Your task to perform on an android device: Search for logitech g910 on ebay.com, select the first entry, and add it to the cart. Image 0: 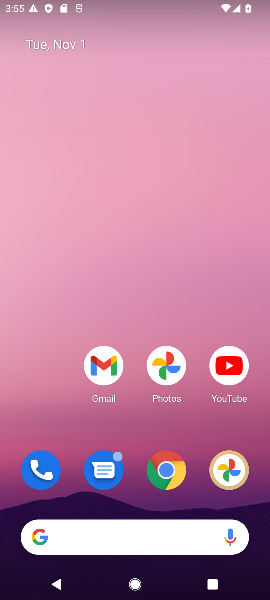
Step 0: click (171, 470)
Your task to perform on an android device: Search for logitech g910 on ebay.com, select the first entry, and add it to the cart. Image 1: 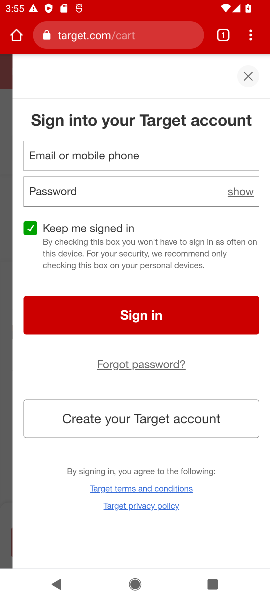
Step 1: click (227, 32)
Your task to perform on an android device: Search for logitech g910 on ebay.com, select the first entry, and add it to the cart. Image 2: 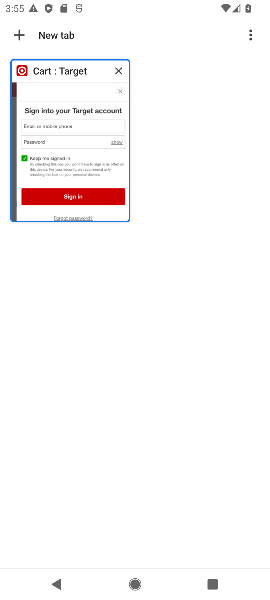
Step 2: click (83, 88)
Your task to perform on an android device: Search for logitech g910 on ebay.com, select the first entry, and add it to the cart. Image 3: 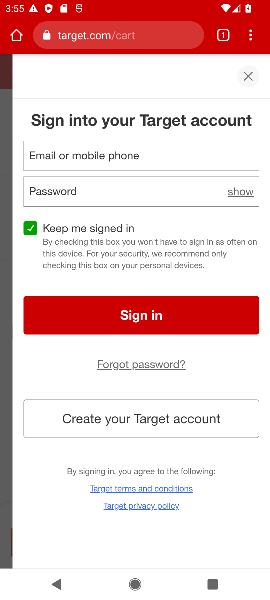
Step 3: click (98, 32)
Your task to perform on an android device: Search for logitech g910 on ebay.com, select the first entry, and add it to the cart. Image 4: 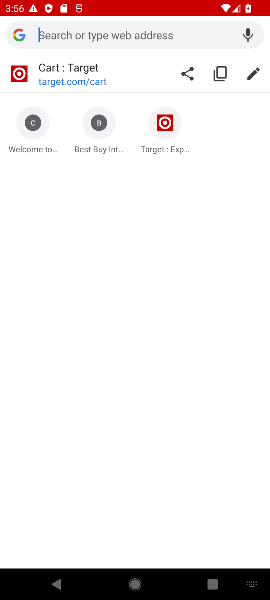
Step 4: type "ebay"
Your task to perform on an android device: Search for logitech g910 on ebay.com, select the first entry, and add it to the cart. Image 5: 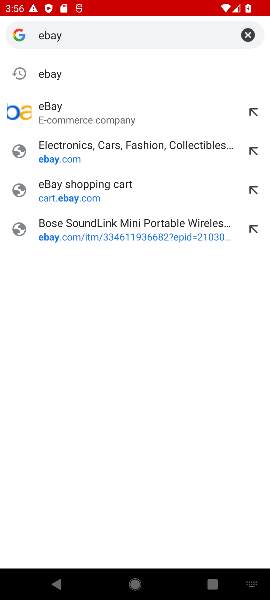
Step 5: click (60, 73)
Your task to perform on an android device: Search for logitech g910 on ebay.com, select the first entry, and add it to the cart. Image 6: 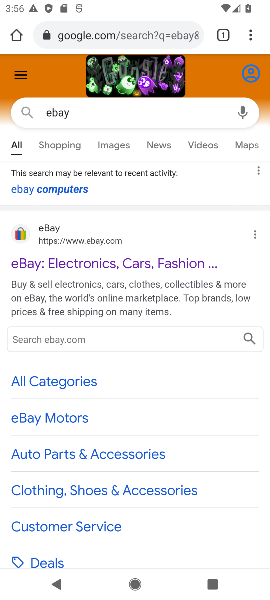
Step 6: click (57, 261)
Your task to perform on an android device: Search for logitech g910 on ebay.com, select the first entry, and add it to the cart. Image 7: 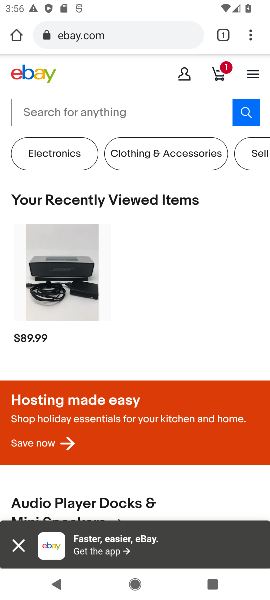
Step 7: click (177, 118)
Your task to perform on an android device: Search for logitech g910 on ebay.com, select the first entry, and add it to the cart. Image 8: 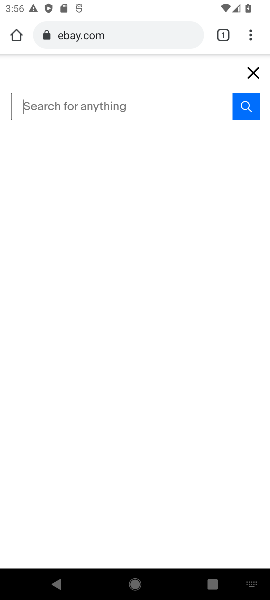
Step 8: type "logitech g910"
Your task to perform on an android device: Search for logitech g910 on ebay.com, select the first entry, and add it to the cart. Image 9: 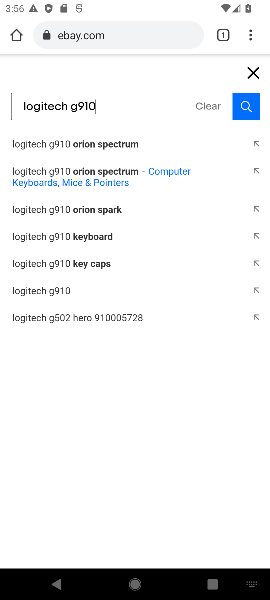
Step 9: click (243, 107)
Your task to perform on an android device: Search for logitech g910 on ebay.com, select the first entry, and add it to the cart. Image 10: 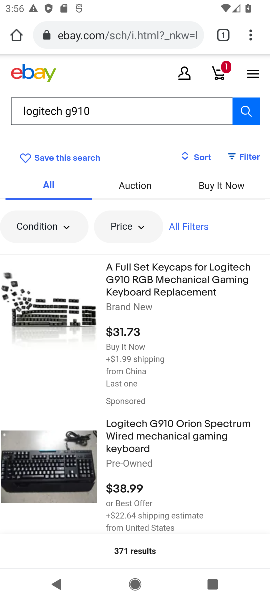
Step 10: click (113, 280)
Your task to perform on an android device: Search for logitech g910 on ebay.com, select the first entry, and add it to the cart. Image 11: 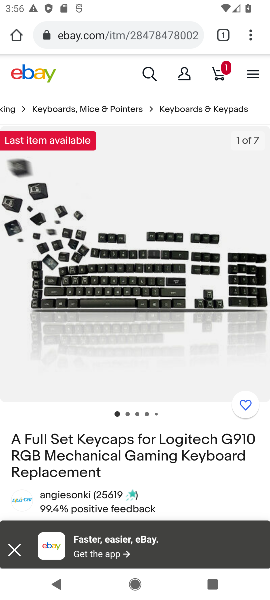
Step 11: drag from (184, 502) to (152, 173)
Your task to perform on an android device: Search for logitech g910 on ebay.com, select the first entry, and add it to the cart. Image 12: 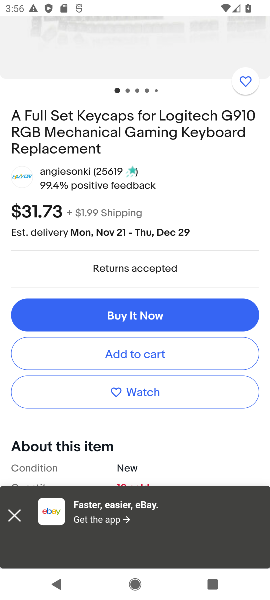
Step 12: click (144, 354)
Your task to perform on an android device: Search for logitech g910 on ebay.com, select the first entry, and add it to the cart. Image 13: 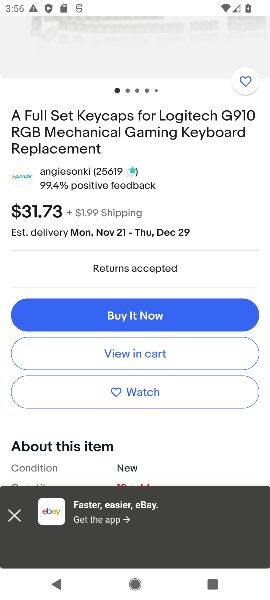
Step 13: click (144, 354)
Your task to perform on an android device: Search for logitech g910 on ebay.com, select the first entry, and add it to the cart. Image 14: 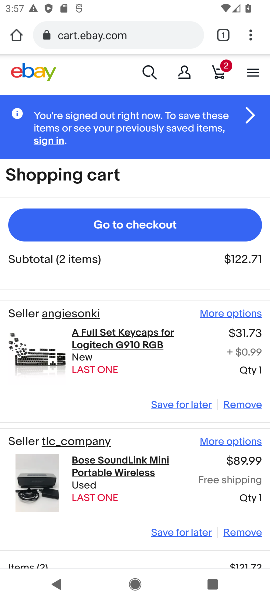
Step 14: click (235, 528)
Your task to perform on an android device: Search for logitech g910 on ebay.com, select the first entry, and add it to the cart. Image 15: 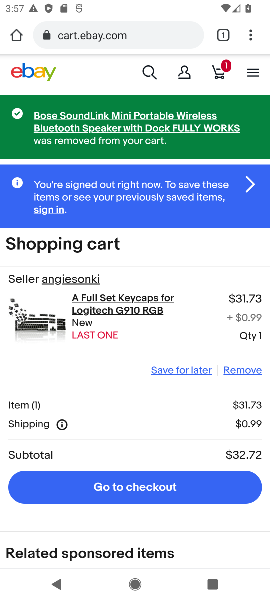
Step 15: click (161, 488)
Your task to perform on an android device: Search for logitech g910 on ebay.com, select the first entry, and add it to the cart. Image 16: 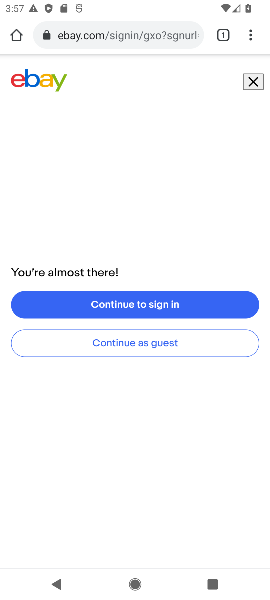
Step 16: task complete